Your task to perform on an android device: toggle airplane mode Image 0: 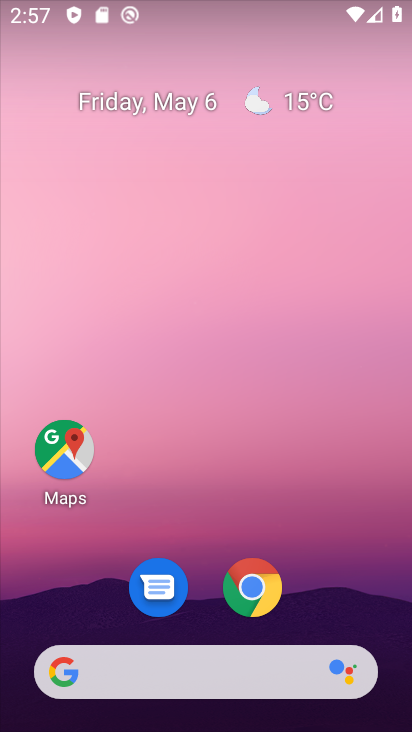
Step 0: press home button
Your task to perform on an android device: toggle airplane mode Image 1: 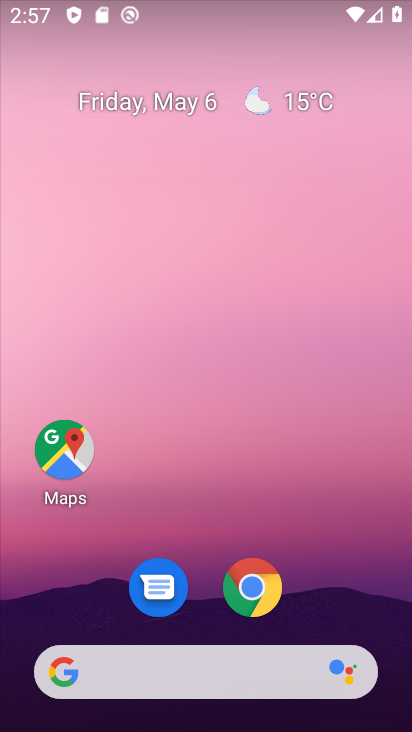
Step 1: drag from (228, 8) to (230, 636)
Your task to perform on an android device: toggle airplane mode Image 2: 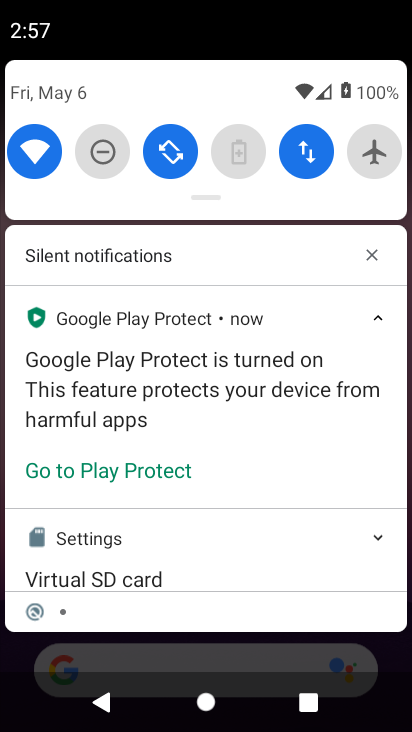
Step 2: drag from (263, 195) to (270, 702)
Your task to perform on an android device: toggle airplane mode Image 3: 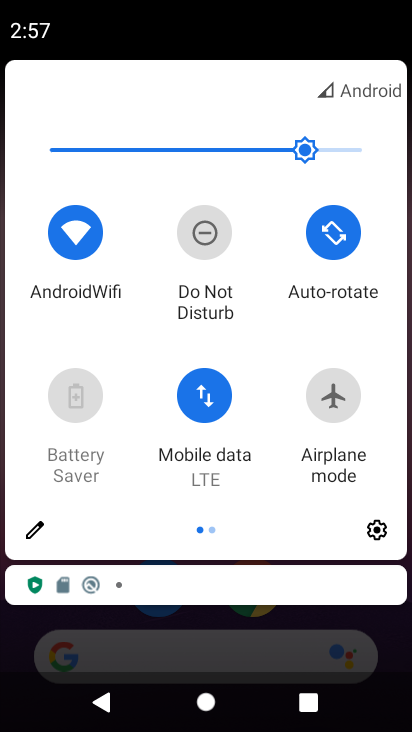
Step 3: click (338, 400)
Your task to perform on an android device: toggle airplane mode Image 4: 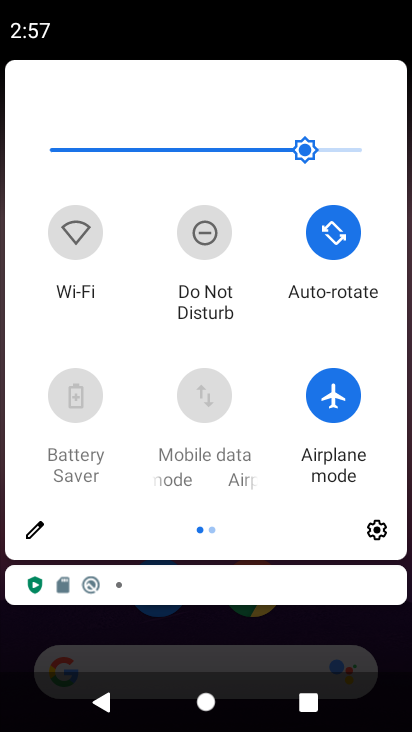
Step 4: task complete